Your task to perform on an android device: check battery use Image 0: 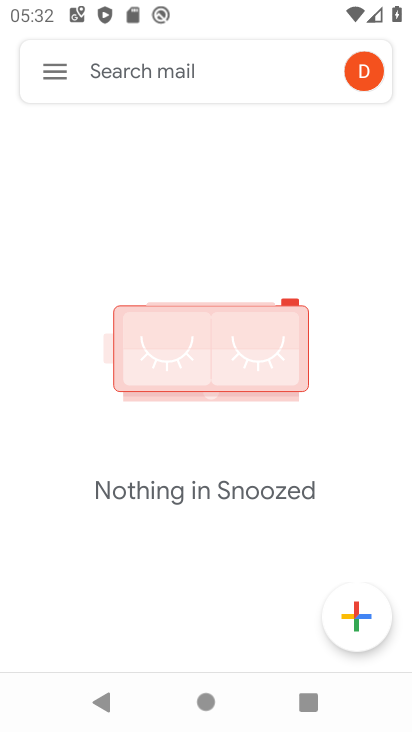
Step 0: press home button
Your task to perform on an android device: check battery use Image 1: 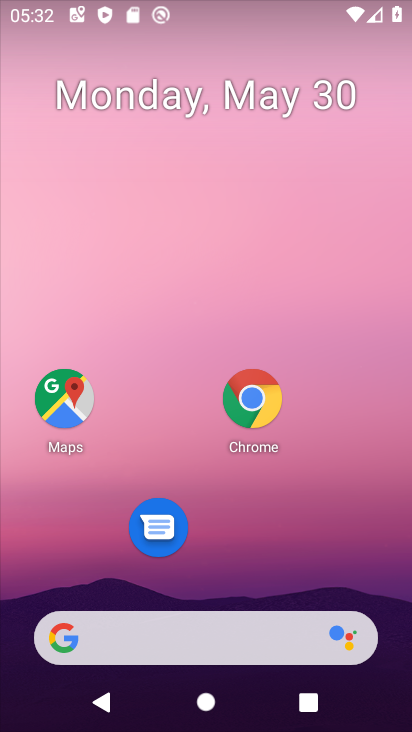
Step 1: drag from (228, 726) to (239, 35)
Your task to perform on an android device: check battery use Image 2: 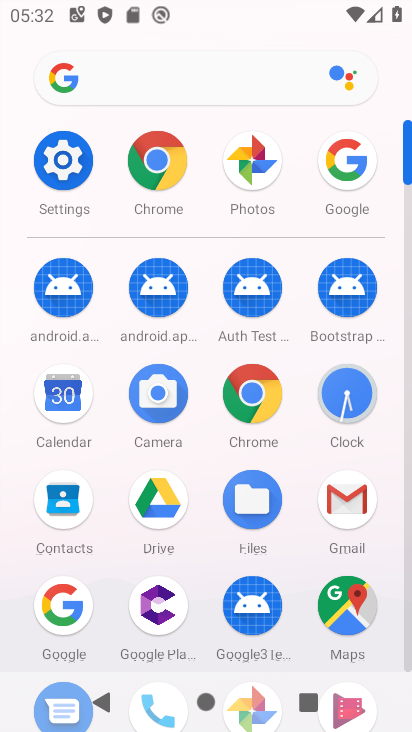
Step 2: click (63, 152)
Your task to perform on an android device: check battery use Image 3: 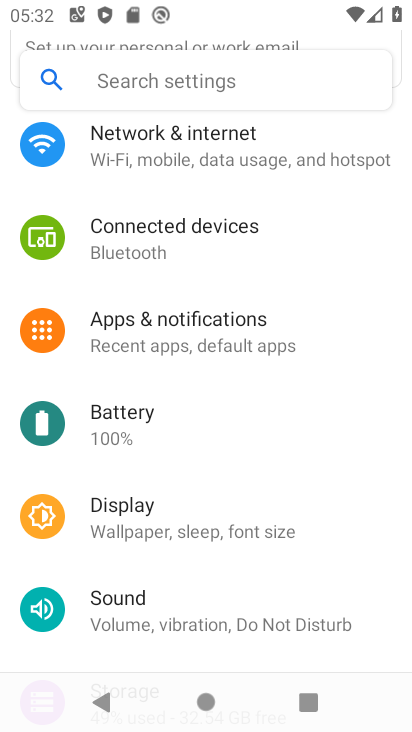
Step 3: click (125, 417)
Your task to perform on an android device: check battery use Image 4: 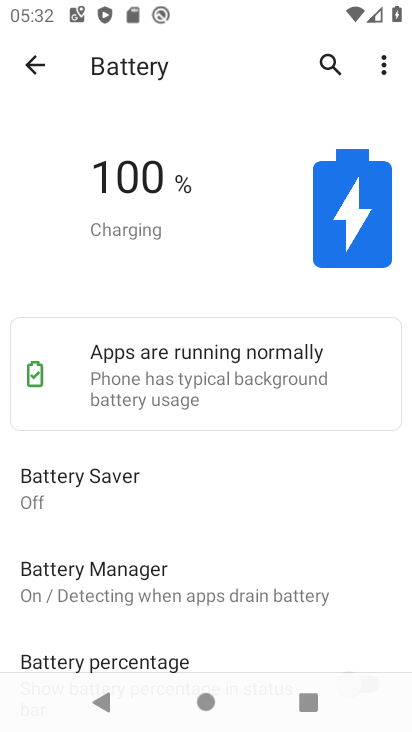
Step 4: click (385, 64)
Your task to perform on an android device: check battery use Image 5: 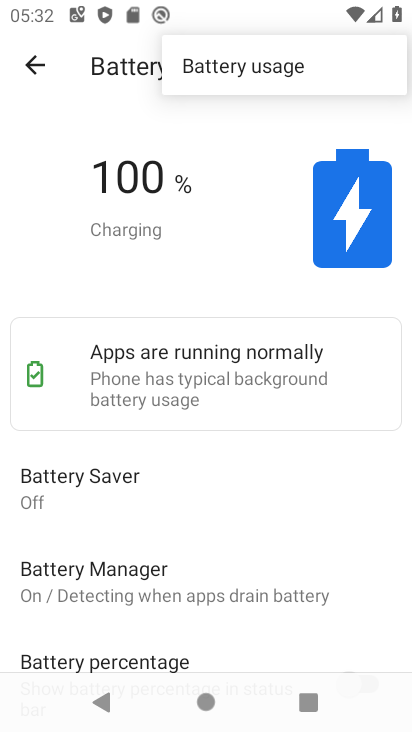
Step 5: click (250, 74)
Your task to perform on an android device: check battery use Image 6: 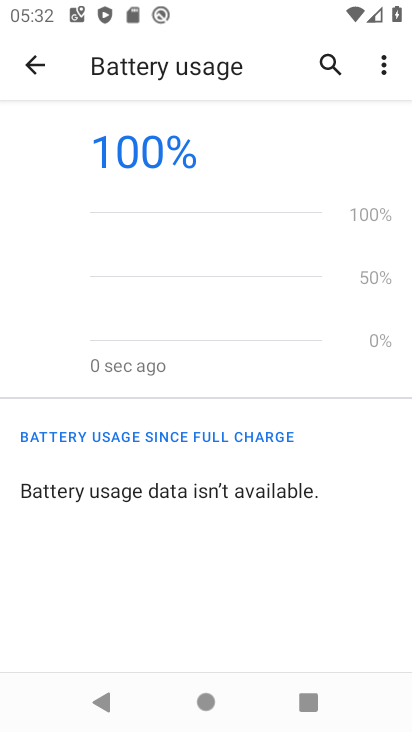
Step 6: task complete